Your task to perform on an android device: Open settings on Google Maps Image 0: 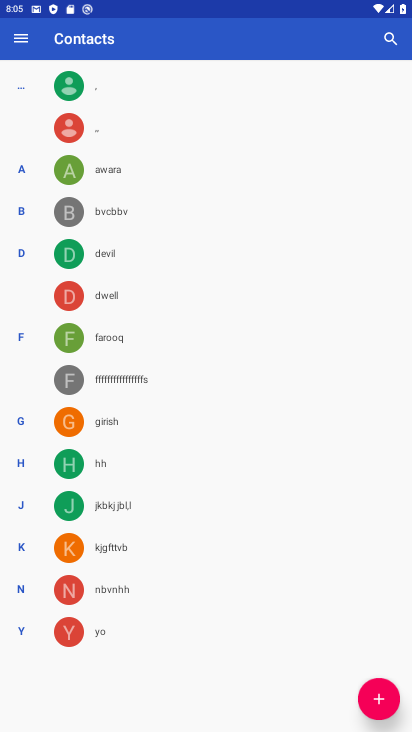
Step 0: press home button
Your task to perform on an android device: Open settings on Google Maps Image 1: 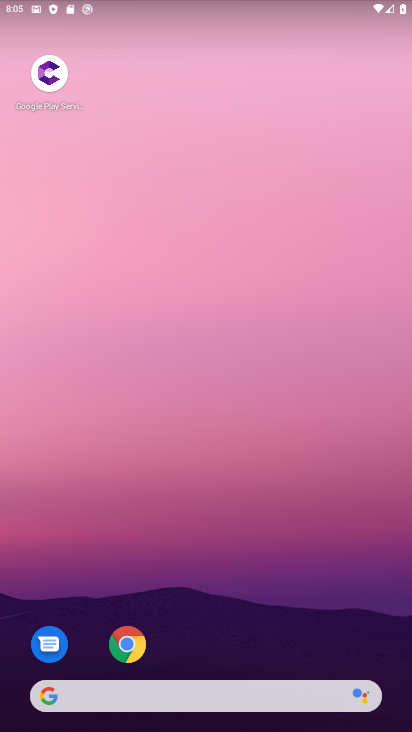
Step 1: drag from (242, 671) to (219, 152)
Your task to perform on an android device: Open settings on Google Maps Image 2: 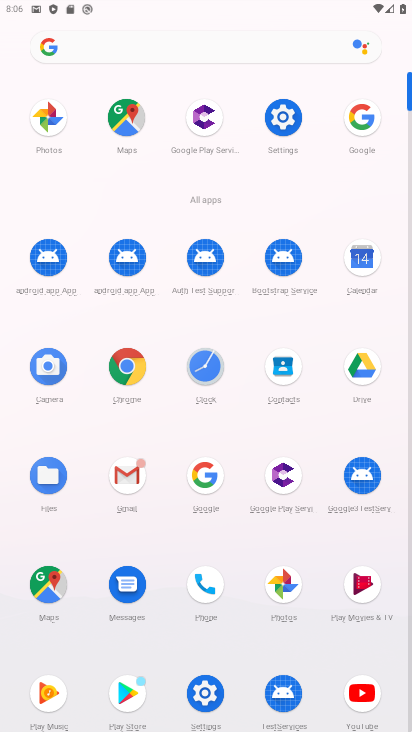
Step 2: click (131, 107)
Your task to perform on an android device: Open settings on Google Maps Image 3: 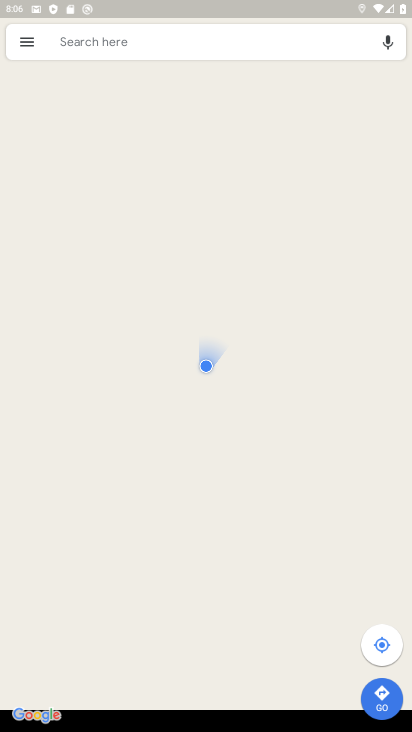
Step 3: click (28, 41)
Your task to perform on an android device: Open settings on Google Maps Image 4: 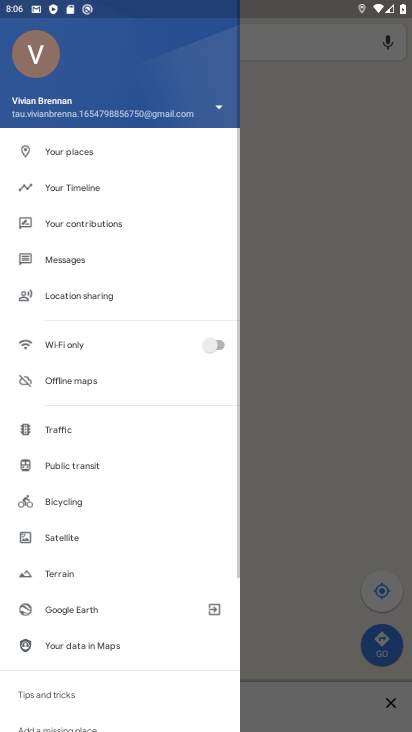
Step 4: drag from (98, 624) to (141, 101)
Your task to perform on an android device: Open settings on Google Maps Image 5: 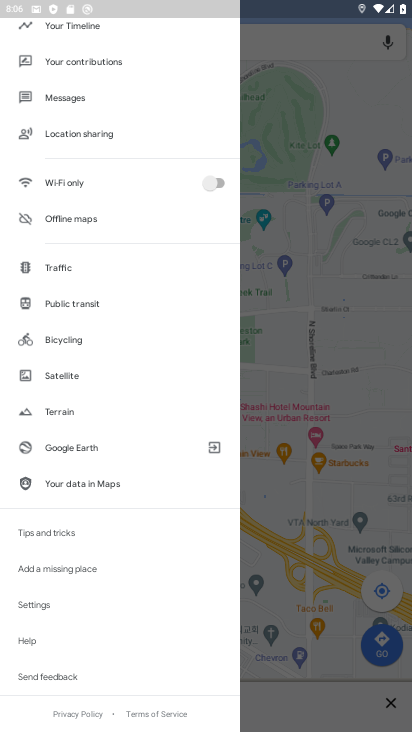
Step 5: click (52, 598)
Your task to perform on an android device: Open settings on Google Maps Image 6: 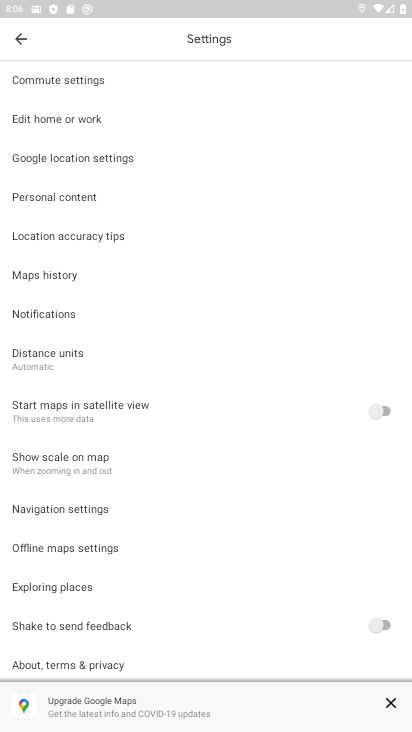
Step 6: task complete